Your task to perform on an android device: Show me popular games on the Play Store Image 0: 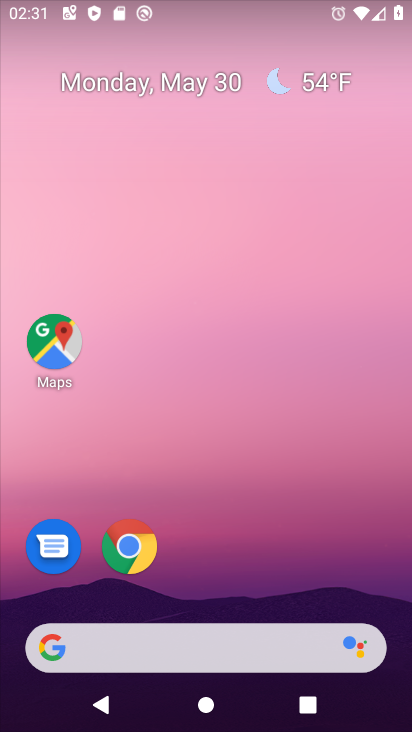
Step 0: drag from (231, 596) to (247, 200)
Your task to perform on an android device: Show me popular games on the Play Store Image 1: 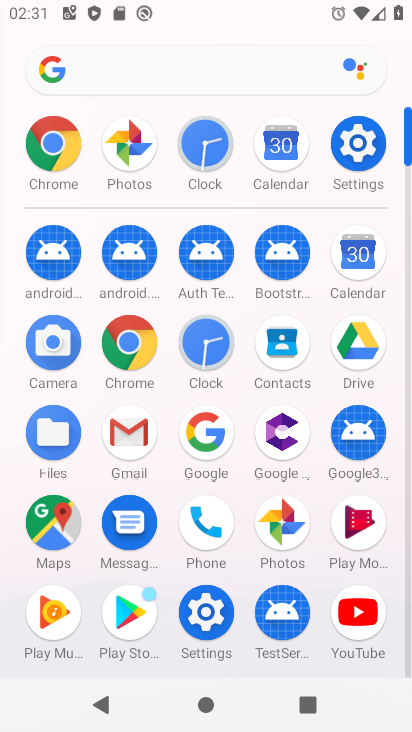
Step 1: click (131, 610)
Your task to perform on an android device: Show me popular games on the Play Store Image 2: 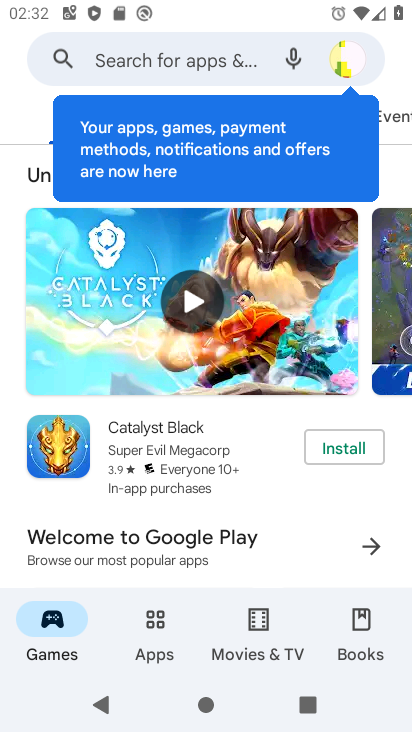
Step 2: drag from (233, 553) to (271, 212)
Your task to perform on an android device: Show me popular games on the Play Store Image 3: 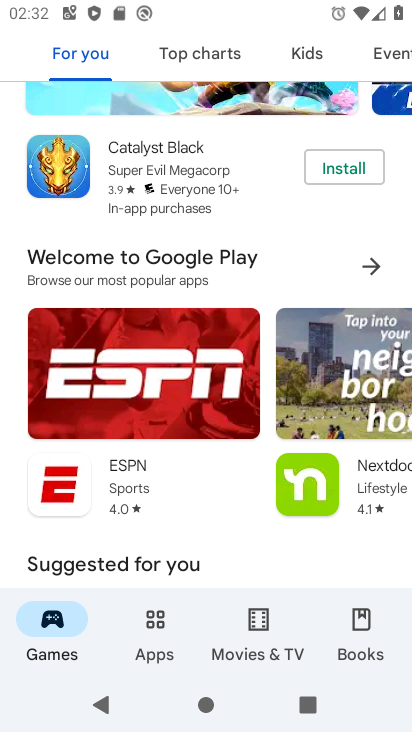
Step 3: drag from (218, 562) to (237, 226)
Your task to perform on an android device: Show me popular games on the Play Store Image 4: 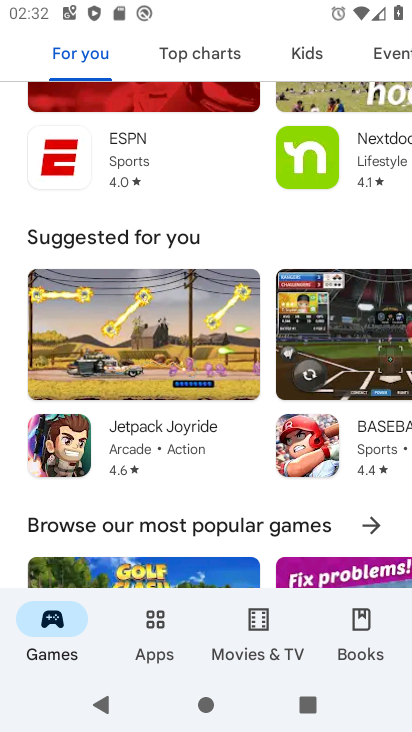
Step 4: click (366, 520)
Your task to perform on an android device: Show me popular games on the Play Store Image 5: 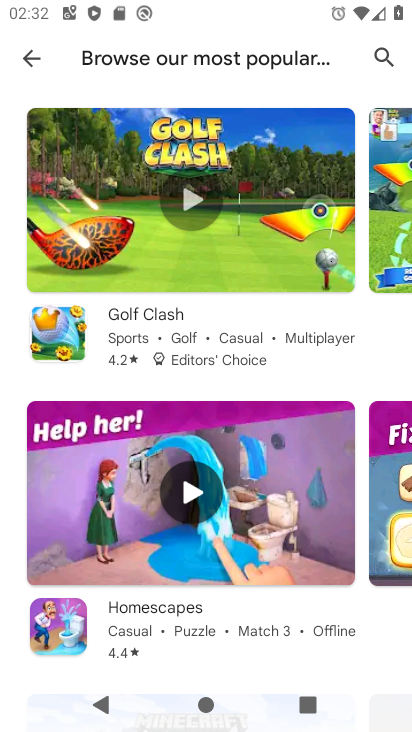
Step 5: task complete